Your task to perform on an android device: Search for a small bookcase on Ikea.com Image 0: 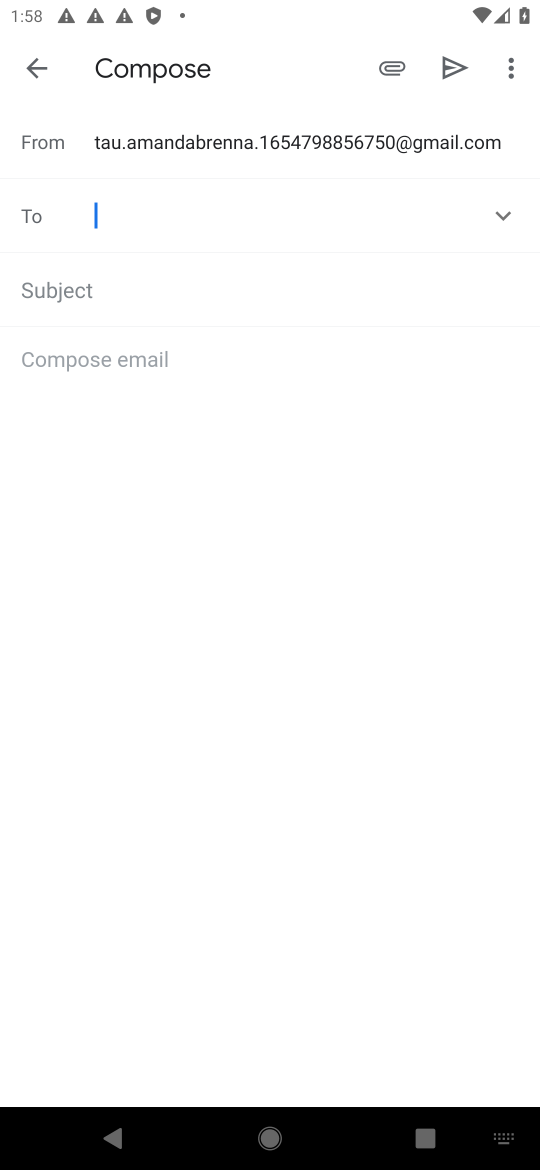
Step 0: press home button
Your task to perform on an android device: Search for a small bookcase on Ikea.com Image 1: 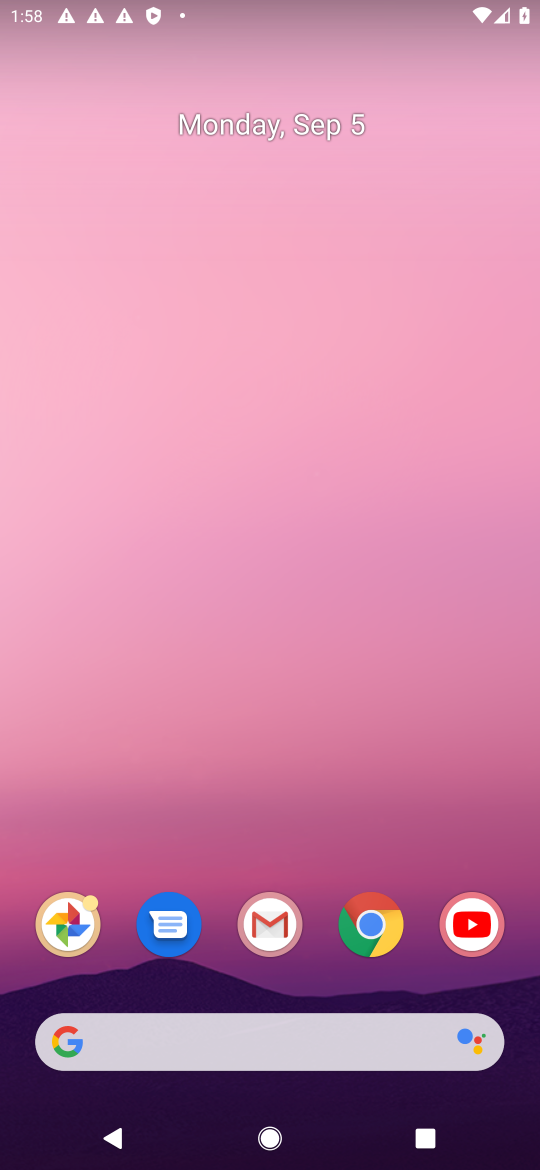
Step 1: click (380, 937)
Your task to perform on an android device: Search for a small bookcase on Ikea.com Image 2: 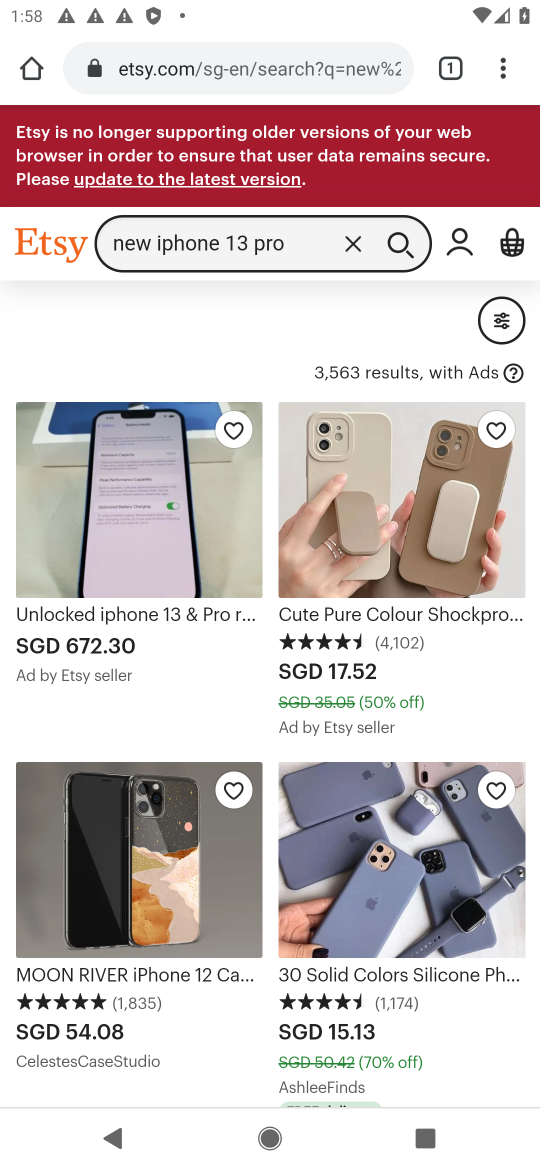
Step 2: click (332, 75)
Your task to perform on an android device: Search for a small bookcase on Ikea.com Image 3: 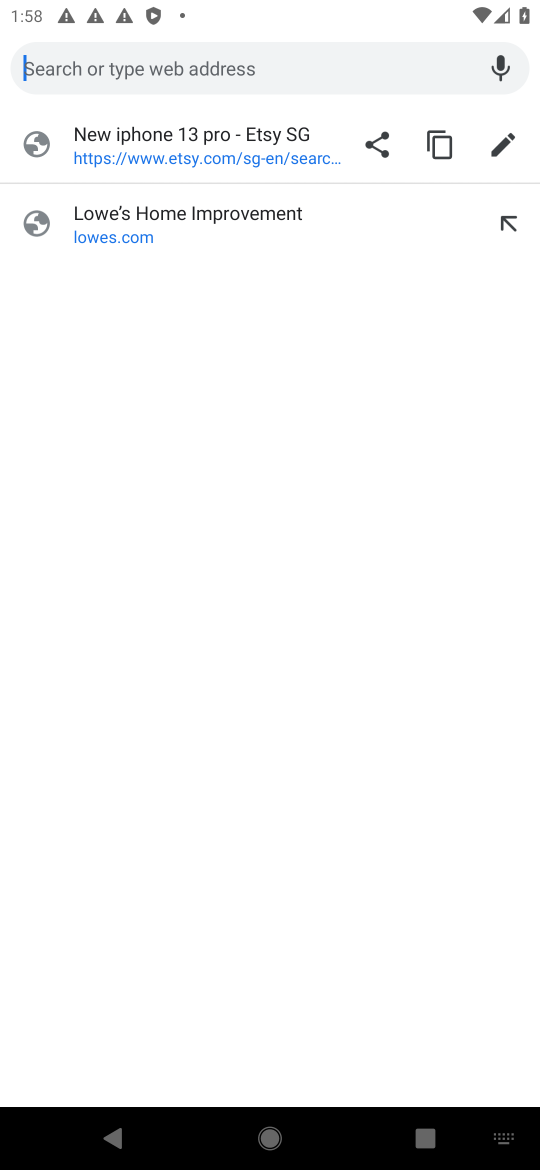
Step 3: type "Ikea.com"
Your task to perform on an android device: Search for a small bookcase on Ikea.com Image 4: 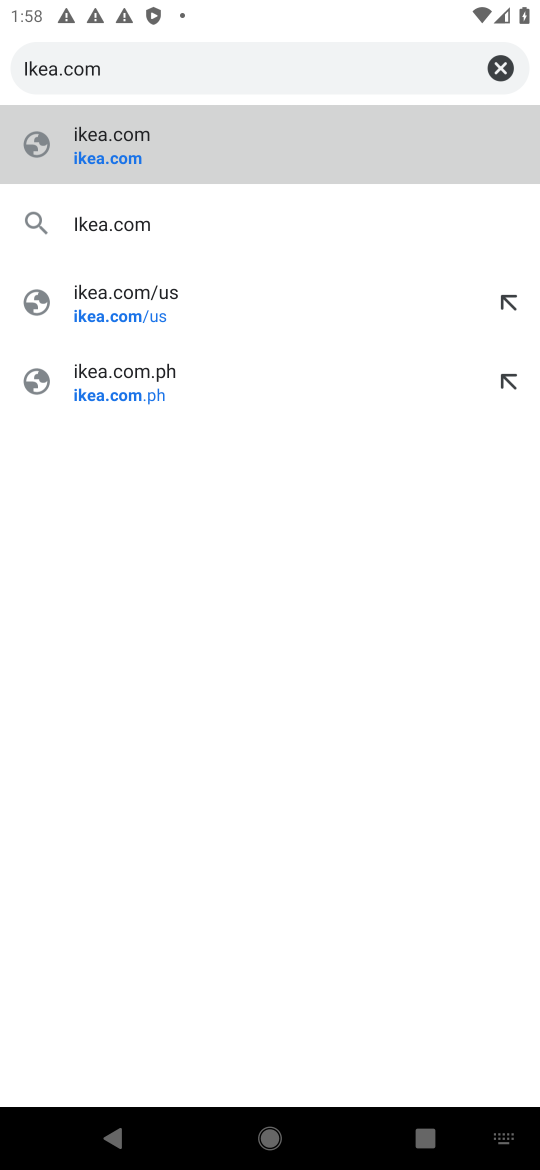
Step 4: click (212, 153)
Your task to perform on an android device: Search for a small bookcase on Ikea.com Image 5: 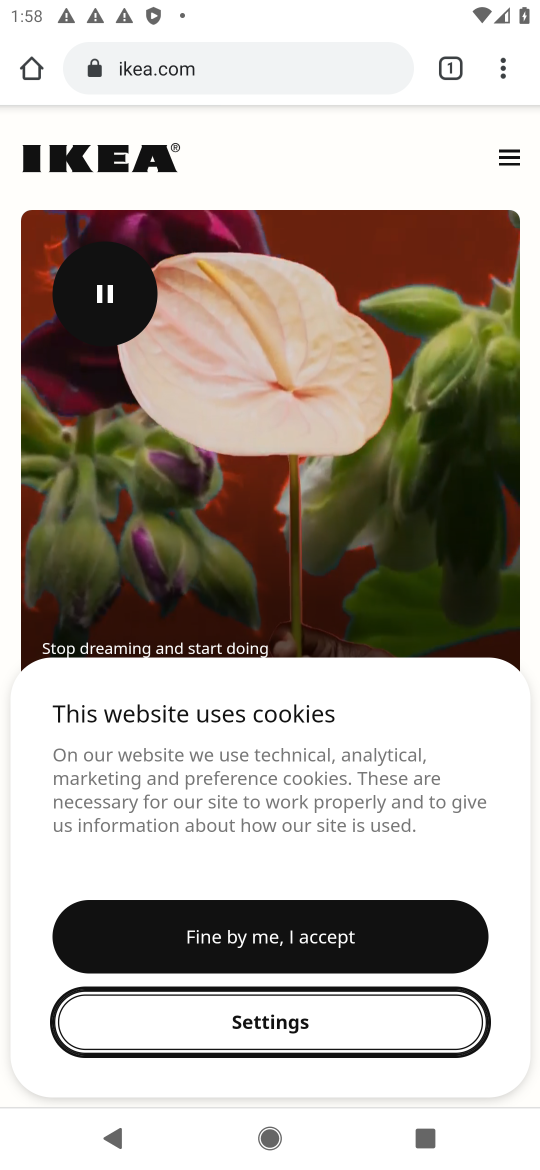
Step 5: task complete